Your task to perform on an android device: Open eBay Image 0: 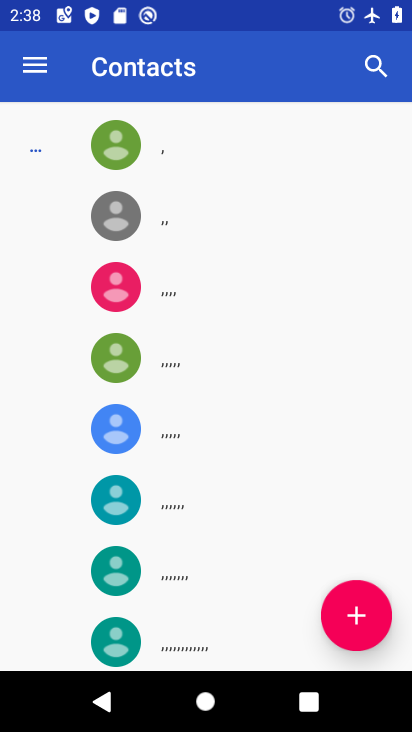
Step 0: press home button
Your task to perform on an android device: Open eBay Image 1: 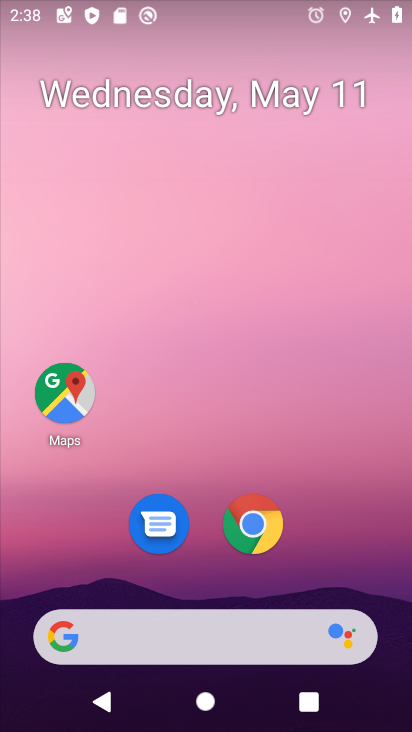
Step 1: click (256, 653)
Your task to perform on an android device: Open eBay Image 2: 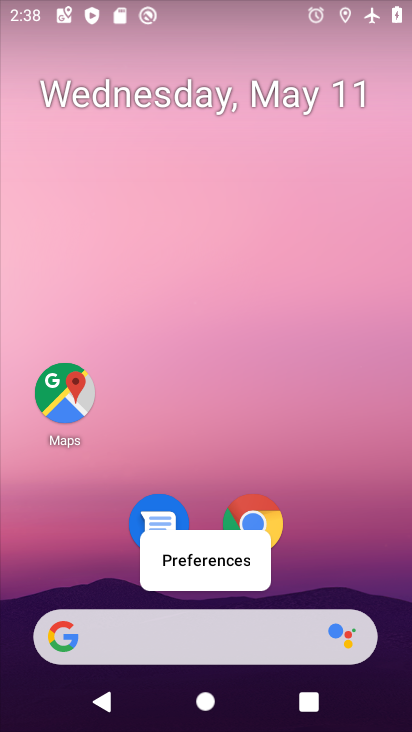
Step 2: click (230, 644)
Your task to perform on an android device: Open eBay Image 3: 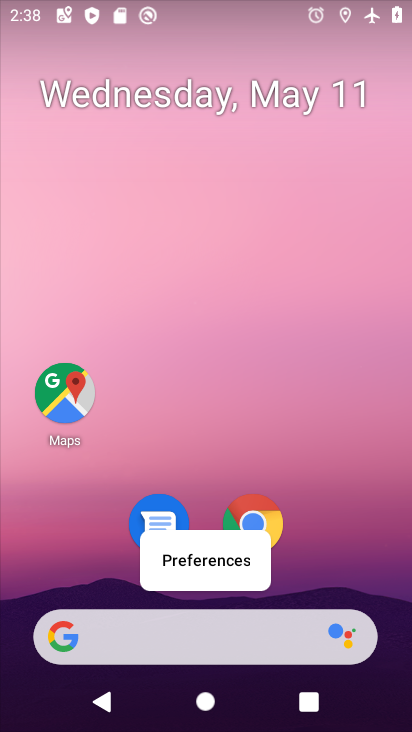
Step 3: click (230, 642)
Your task to perform on an android device: Open eBay Image 4: 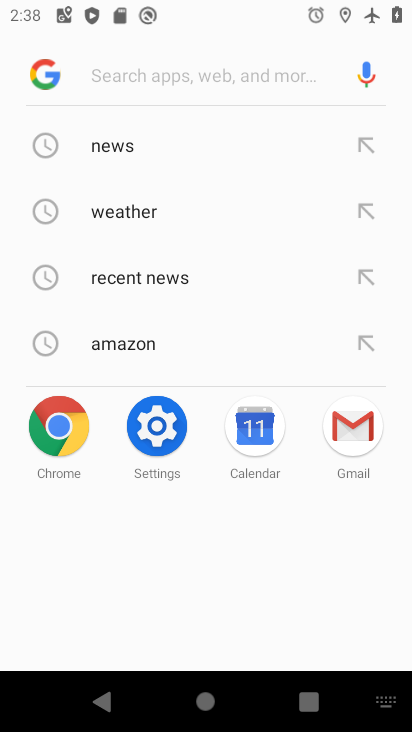
Step 4: type "ebay"
Your task to perform on an android device: Open eBay Image 5: 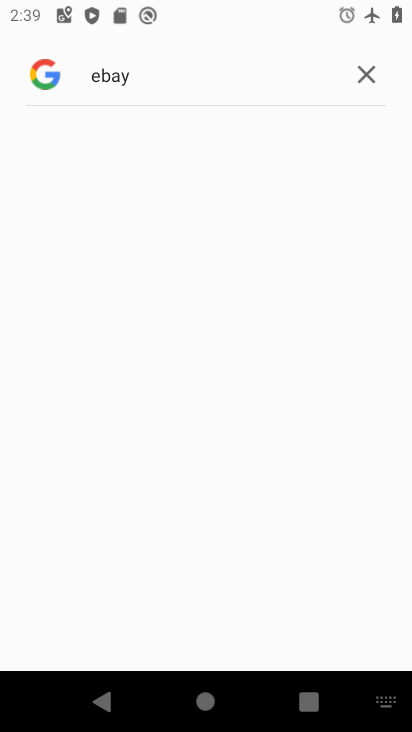
Step 5: task complete